Your task to perform on an android device: Open Youtube and go to the subscriptions tab Image 0: 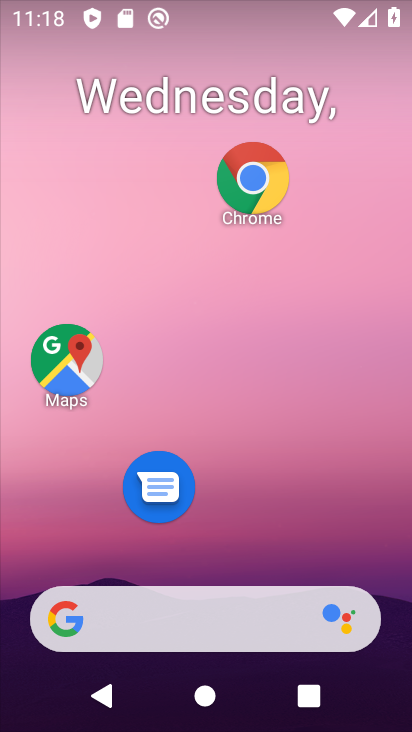
Step 0: drag from (254, 444) to (266, 78)
Your task to perform on an android device: Open Youtube and go to the subscriptions tab Image 1: 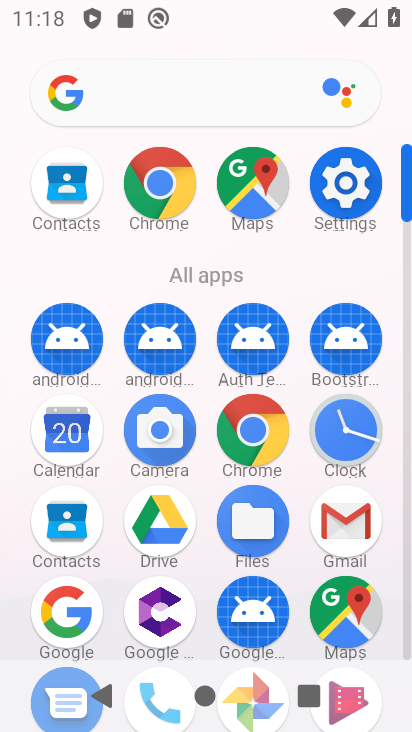
Step 1: drag from (298, 505) to (301, 253)
Your task to perform on an android device: Open Youtube and go to the subscriptions tab Image 2: 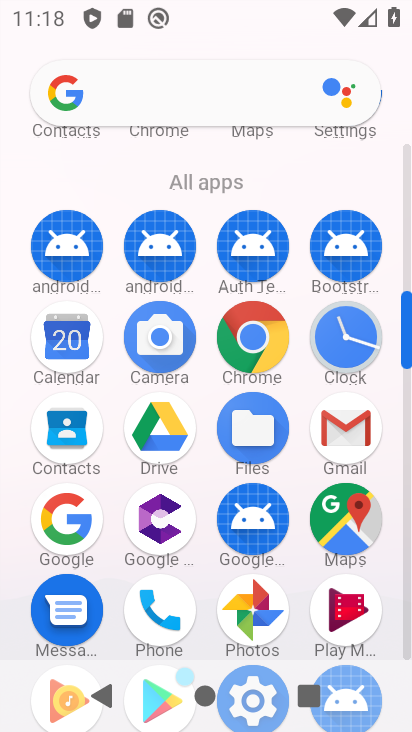
Step 2: drag from (291, 562) to (289, 158)
Your task to perform on an android device: Open Youtube and go to the subscriptions tab Image 3: 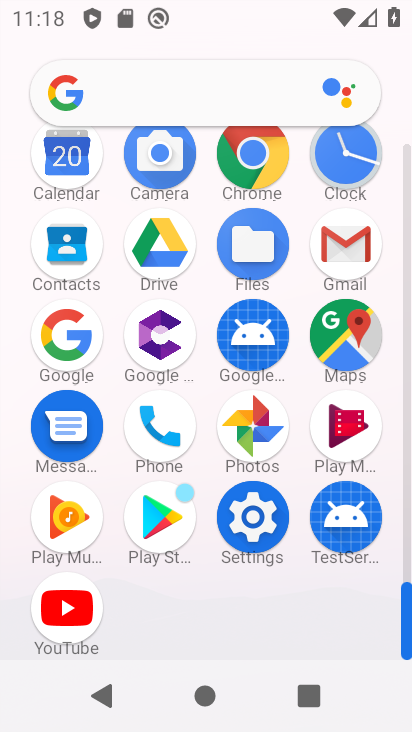
Step 3: click (68, 622)
Your task to perform on an android device: Open Youtube and go to the subscriptions tab Image 4: 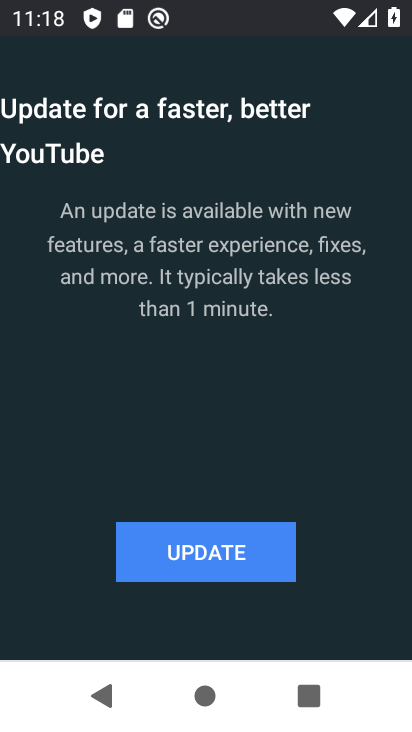
Step 4: click (218, 557)
Your task to perform on an android device: Open Youtube and go to the subscriptions tab Image 5: 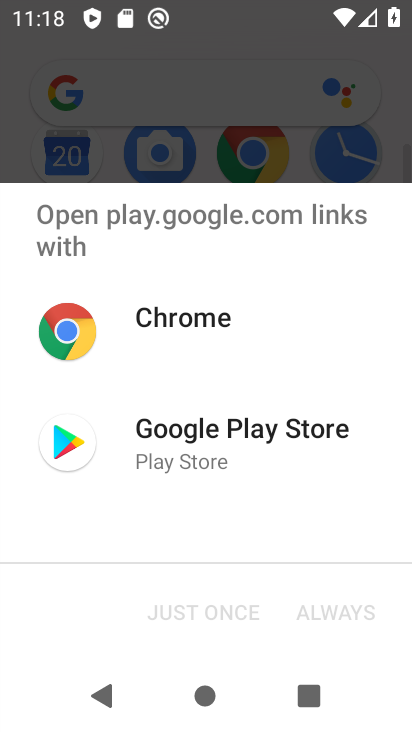
Step 5: click (223, 434)
Your task to perform on an android device: Open Youtube and go to the subscriptions tab Image 6: 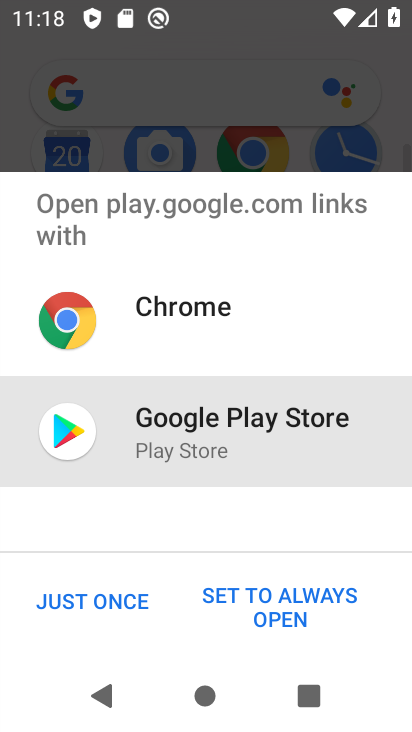
Step 6: click (112, 600)
Your task to perform on an android device: Open Youtube and go to the subscriptions tab Image 7: 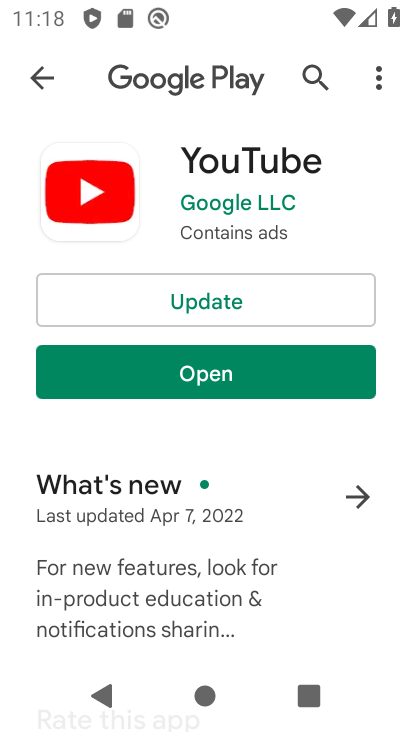
Step 7: click (164, 284)
Your task to perform on an android device: Open Youtube and go to the subscriptions tab Image 8: 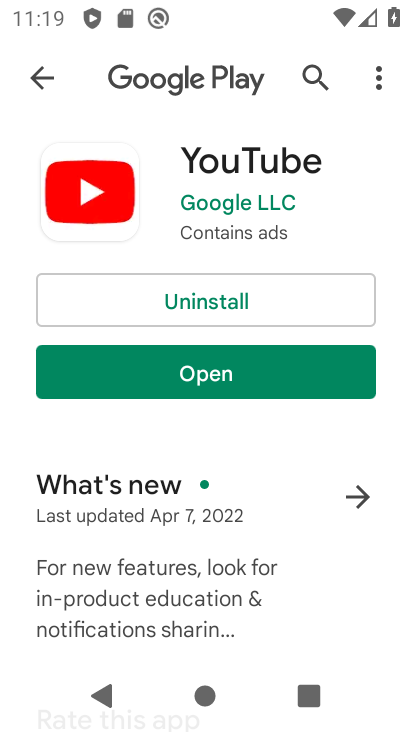
Step 8: click (237, 375)
Your task to perform on an android device: Open Youtube and go to the subscriptions tab Image 9: 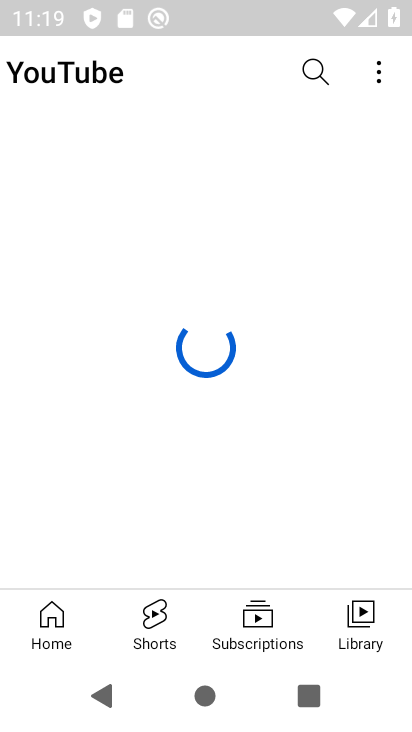
Step 9: click (261, 612)
Your task to perform on an android device: Open Youtube and go to the subscriptions tab Image 10: 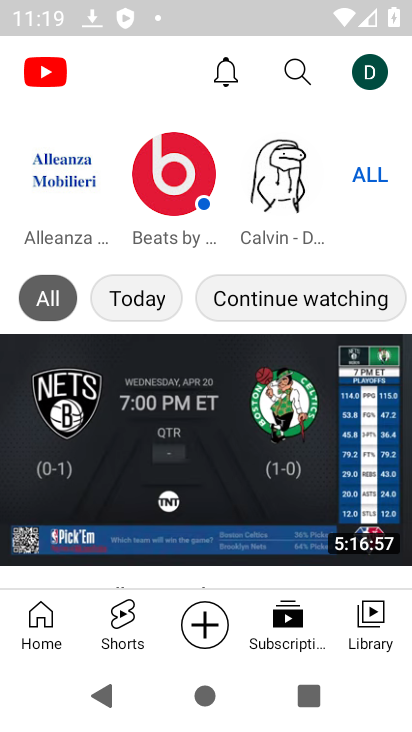
Step 10: task complete